Your task to perform on an android device: Search for vegetarian restaurants on Maps Image 0: 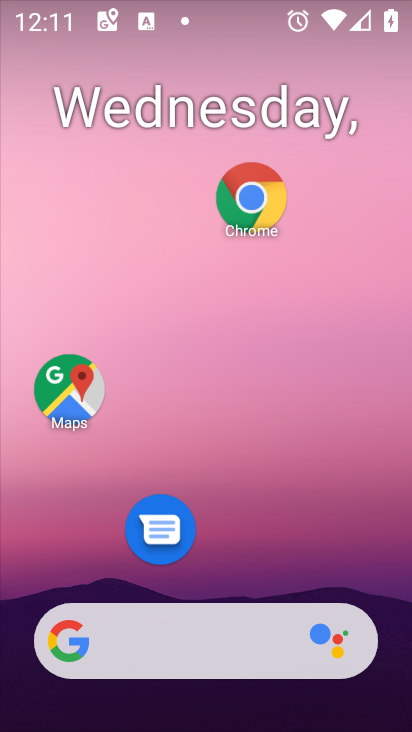
Step 0: drag from (270, 604) to (218, 273)
Your task to perform on an android device: Search for vegetarian restaurants on Maps Image 1: 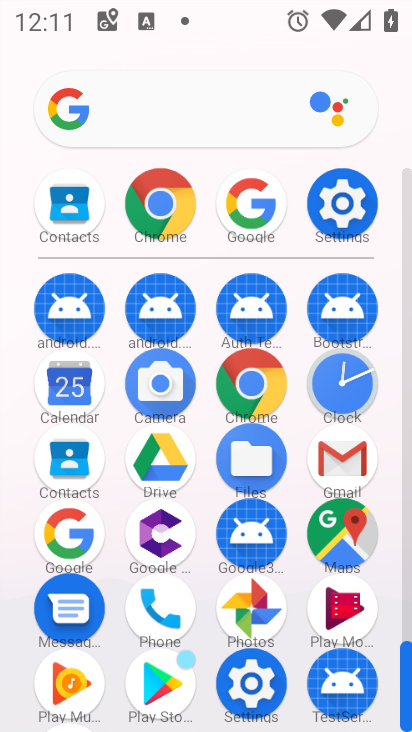
Step 1: drag from (219, 578) to (273, 283)
Your task to perform on an android device: Search for vegetarian restaurants on Maps Image 2: 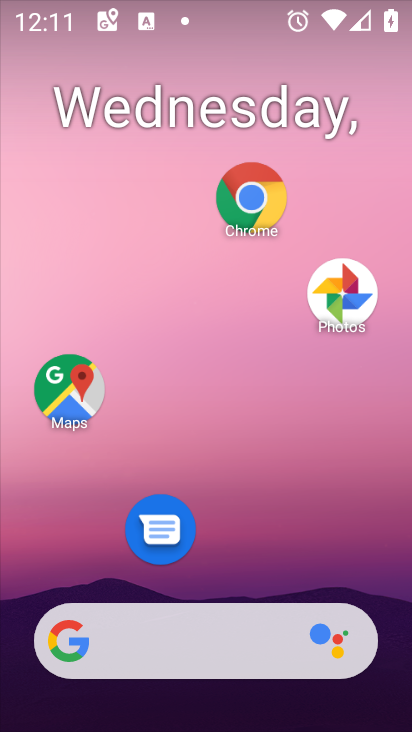
Step 2: drag from (211, 626) to (206, 219)
Your task to perform on an android device: Search for vegetarian restaurants on Maps Image 3: 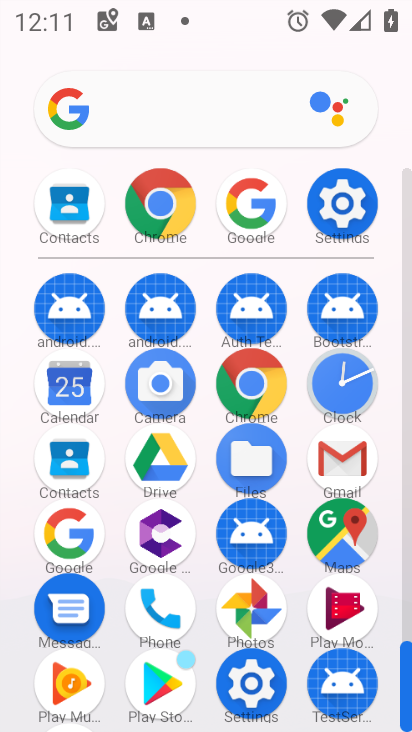
Step 3: click (335, 553)
Your task to perform on an android device: Search for vegetarian restaurants on Maps Image 4: 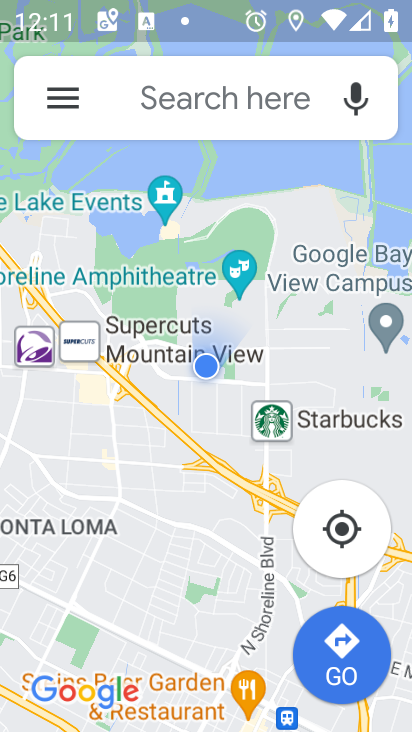
Step 4: click (216, 120)
Your task to perform on an android device: Search for vegetarian restaurants on Maps Image 5: 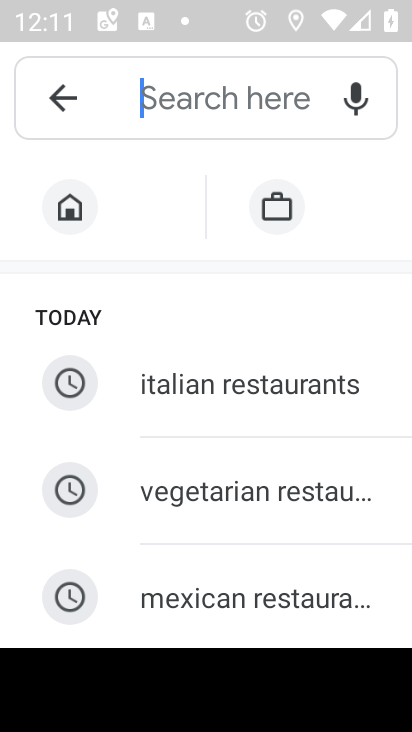
Step 5: click (226, 489)
Your task to perform on an android device: Search for vegetarian restaurants on Maps Image 6: 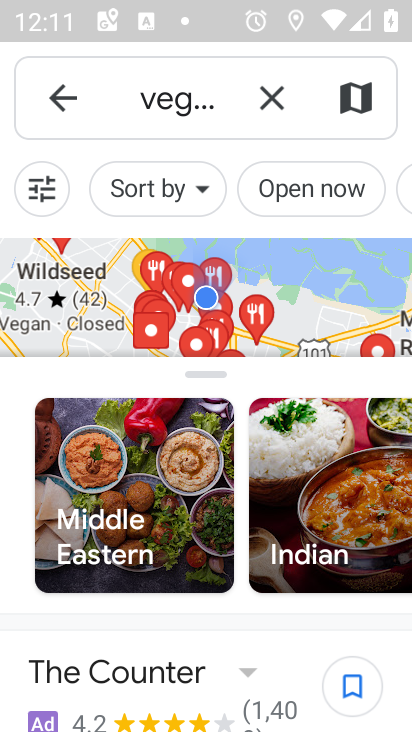
Step 6: task complete